Your task to perform on an android device: Open Reddit.com Image 0: 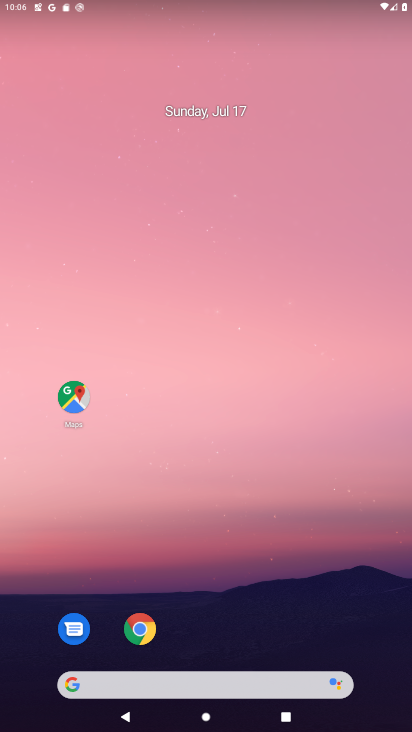
Step 0: click (139, 631)
Your task to perform on an android device: Open Reddit.com Image 1: 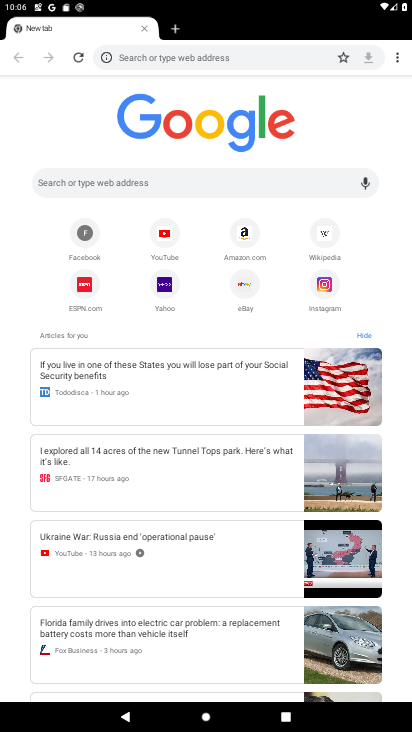
Step 1: click (230, 173)
Your task to perform on an android device: Open Reddit.com Image 2: 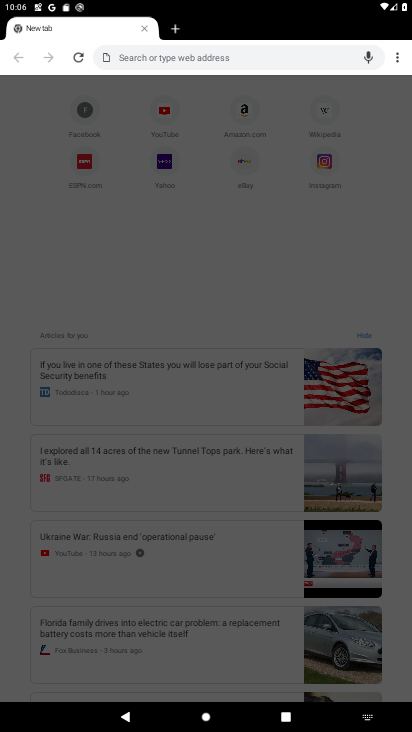
Step 2: type "Reddit.com"
Your task to perform on an android device: Open Reddit.com Image 3: 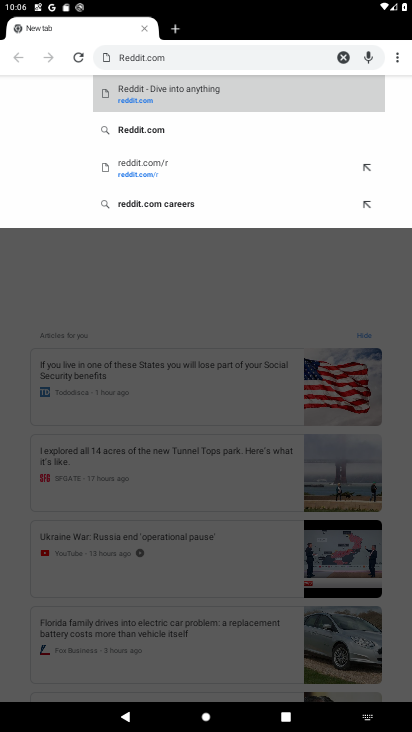
Step 3: click (157, 135)
Your task to perform on an android device: Open Reddit.com Image 4: 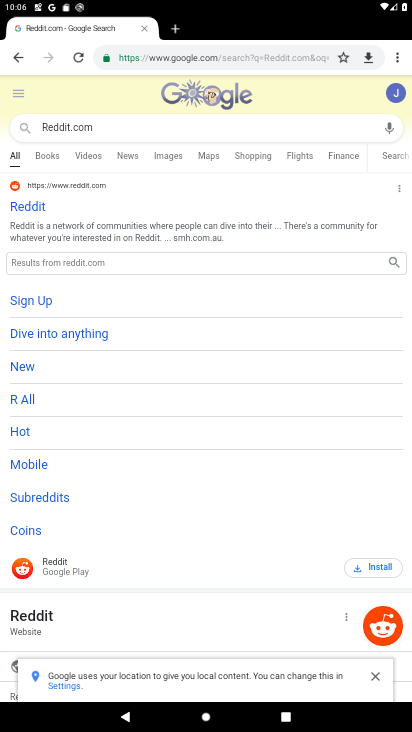
Step 4: click (37, 205)
Your task to perform on an android device: Open Reddit.com Image 5: 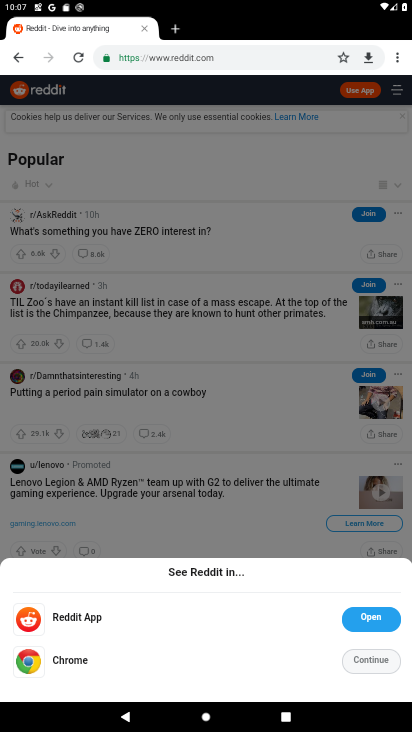
Step 5: click (368, 657)
Your task to perform on an android device: Open Reddit.com Image 6: 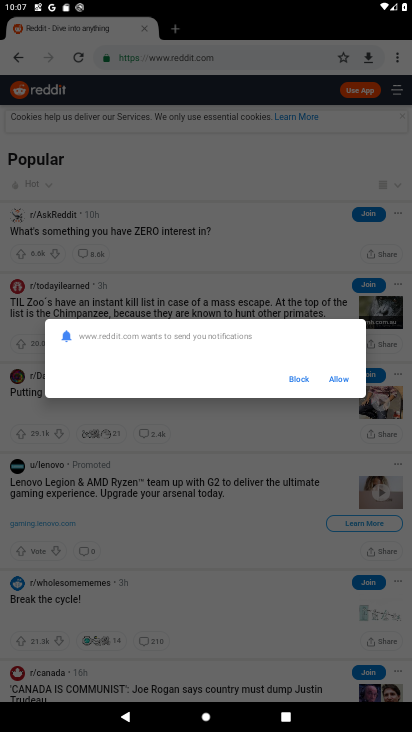
Step 6: click (338, 379)
Your task to perform on an android device: Open Reddit.com Image 7: 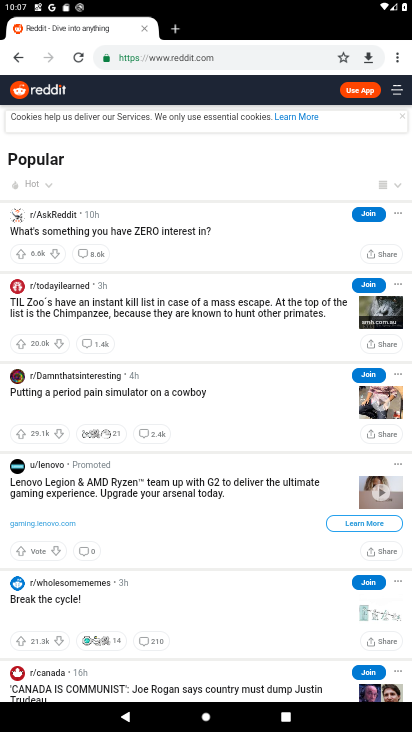
Step 7: task complete